Your task to perform on an android device: Go to sound settings Image 0: 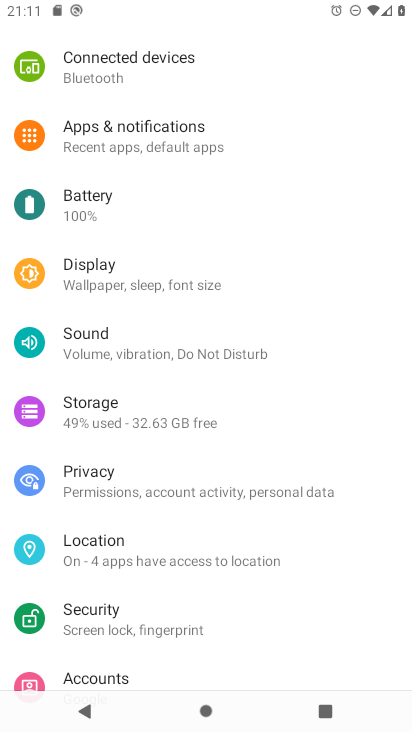
Step 0: click (150, 323)
Your task to perform on an android device: Go to sound settings Image 1: 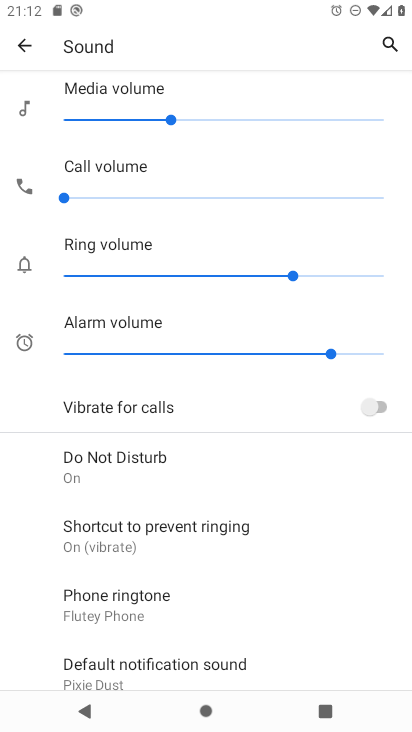
Step 1: task complete